Your task to perform on an android device: When is my next meeting? Image 0: 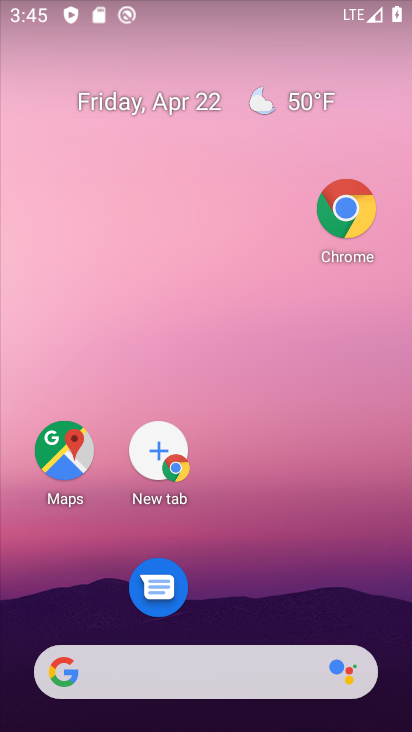
Step 0: click (101, 107)
Your task to perform on an android device: When is my next meeting? Image 1: 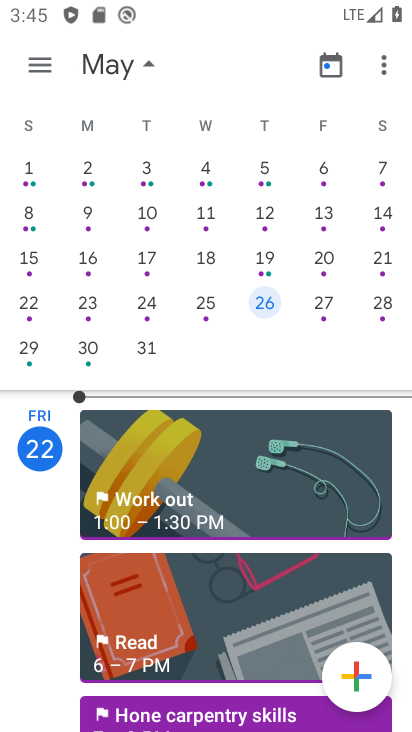
Step 1: click (46, 60)
Your task to perform on an android device: When is my next meeting? Image 2: 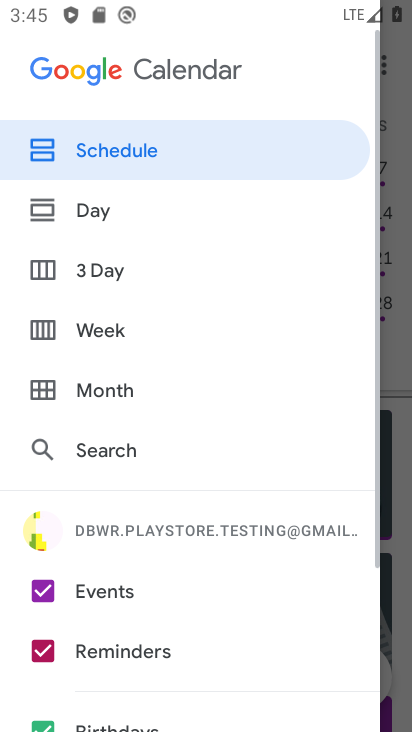
Step 2: task complete